Your task to perform on an android device: What's the weather going to be this weekend? Image 0: 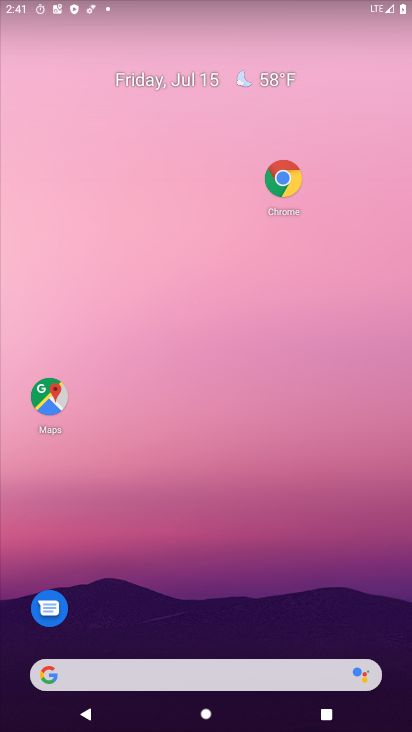
Step 0: drag from (240, 598) to (287, 245)
Your task to perform on an android device: What's the weather going to be this weekend? Image 1: 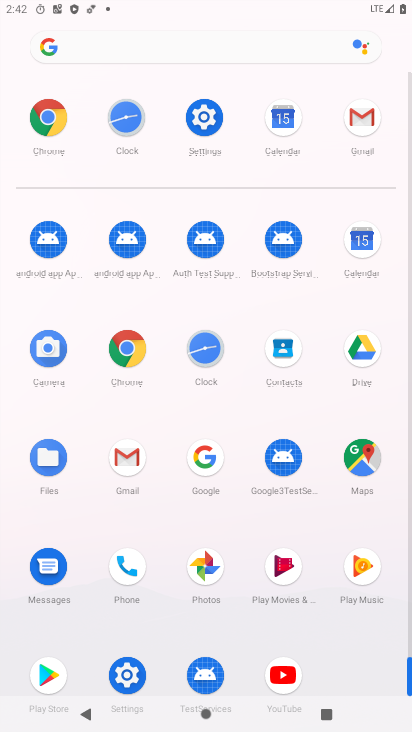
Step 1: click (112, 350)
Your task to perform on an android device: What's the weather going to be this weekend? Image 2: 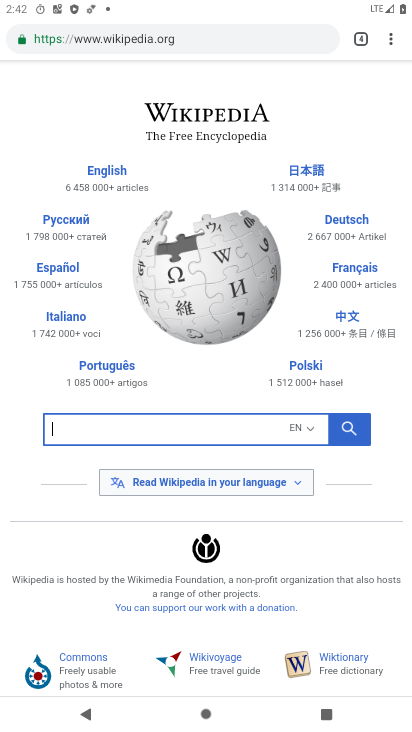
Step 2: click (166, 32)
Your task to perform on an android device: What's the weather going to be this weekend? Image 3: 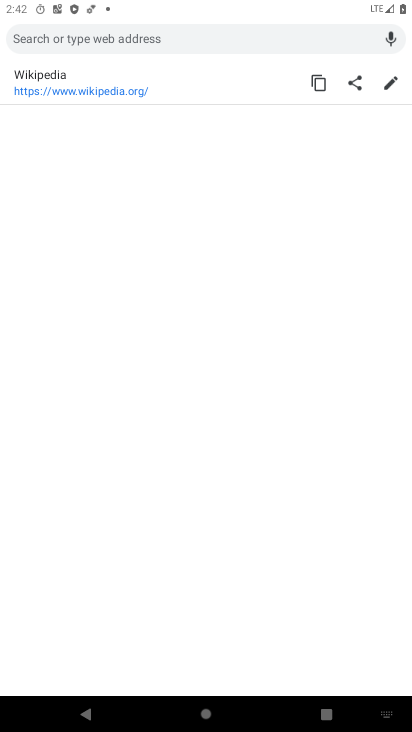
Step 3: type "What's the weather going to be this weekend?"
Your task to perform on an android device: What's the weather going to be this weekend? Image 4: 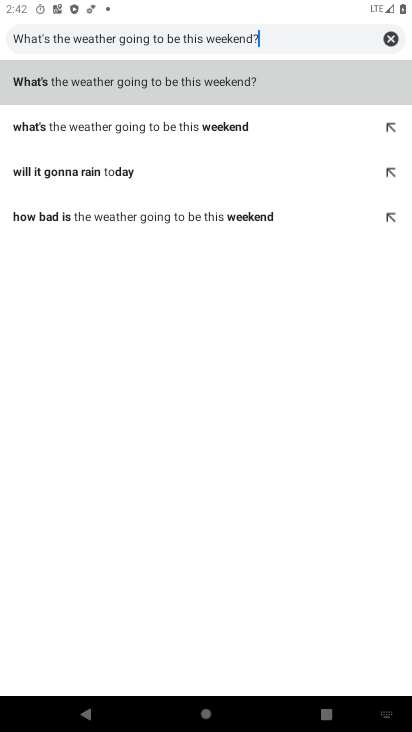
Step 4: type ""
Your task to perform on an android device: What's the weather going to be this weekend? Image 5: 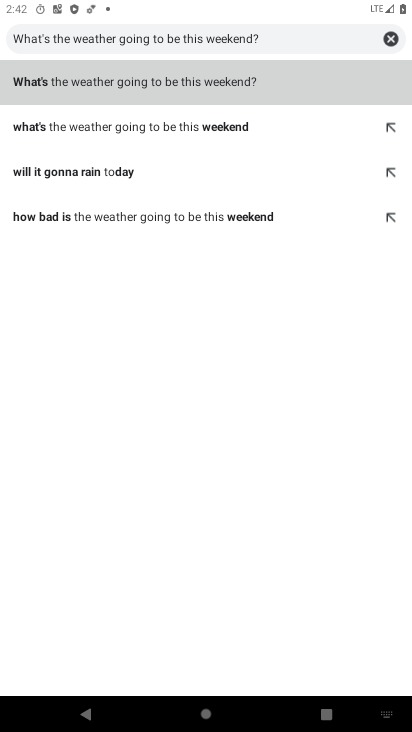
Step 5: click (141, 80)
Your task to perform on an android device: What's the weather going to be this weekend? Image 6: 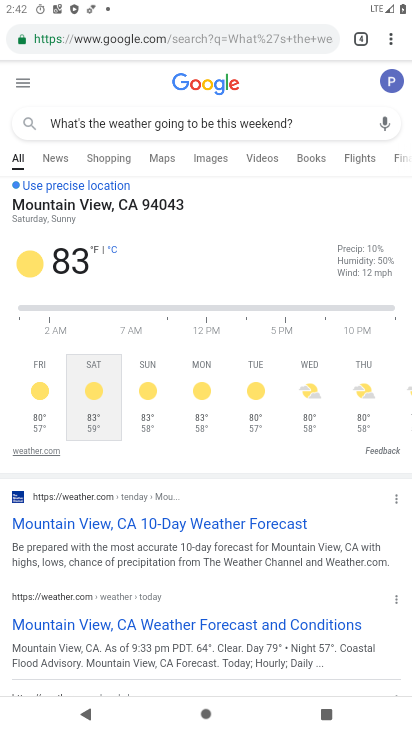
Step 6: task complete